Your task to perform on an android device: toggle improve location accuracy Image 0: 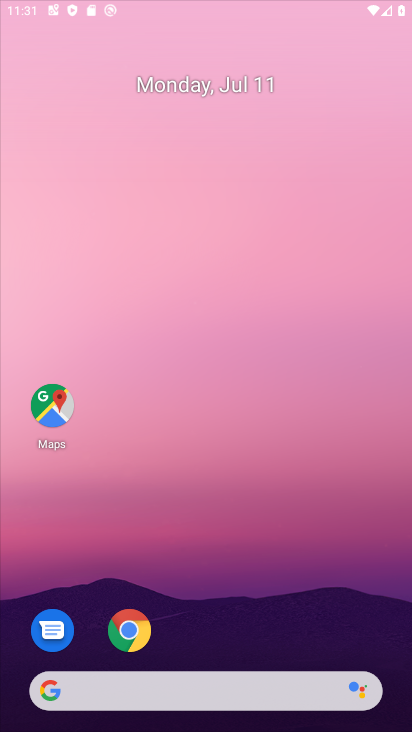
Step 0: press home button
Your task to perform on an android device: toggle improve location accuracy Image 1: 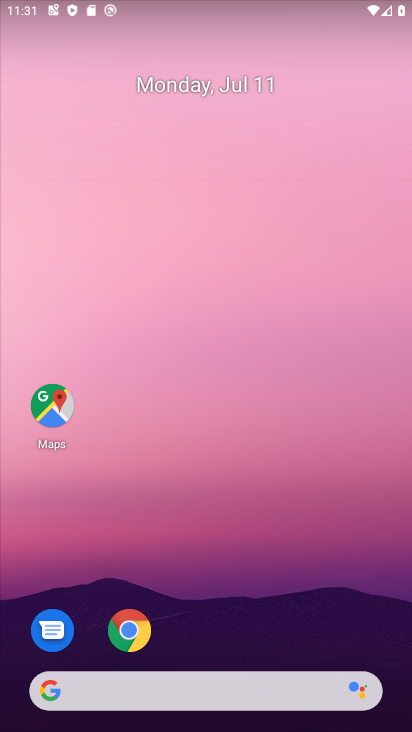
Step 1: click (55, 413)
Your task to perform on an android device: toggle improve location accuracy Image 2: 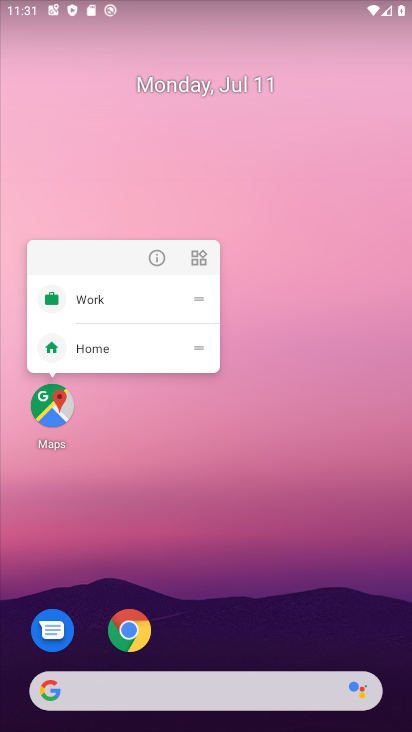
Step 2: drag from (347, 643) to (340, 56)
Your task to perform on an android device: toggle improve location accuracy Image 3: 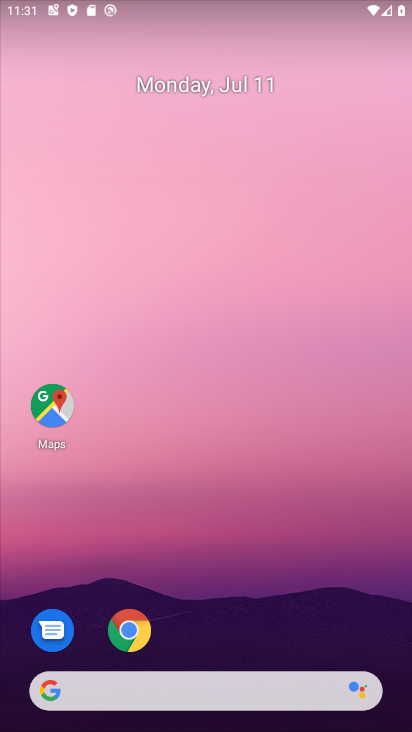
Step 3: drag from (252, 661) to (229, 260)
Your task to perform on an android device: toggle improve location accuracy Image 4: 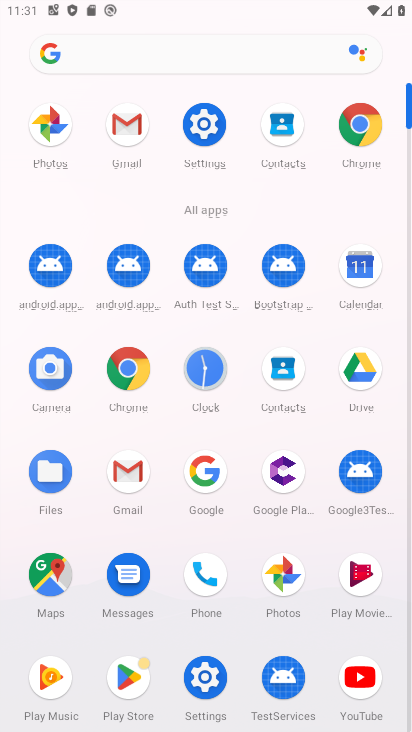
Step 4: click (202, 113)
Your task to perform on an android device: toggle improve location accuracy Image 5: 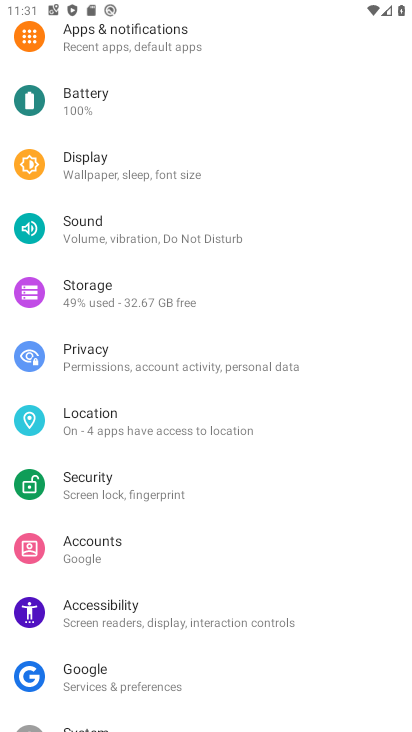
Step 5: click (159, 419)
Your task to perform on an android device: toggle improve location accuracy Image 6: 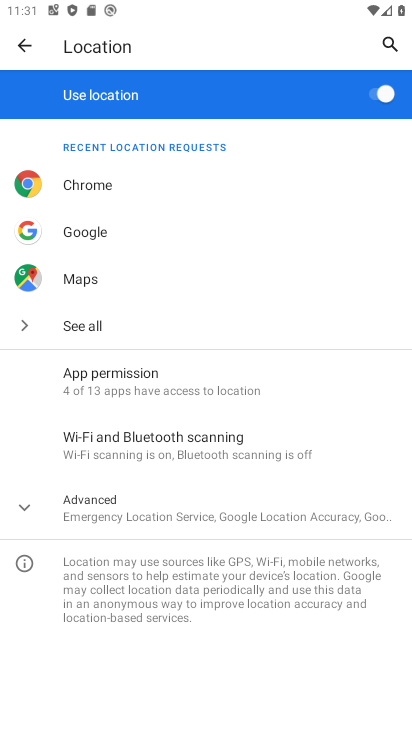
Step 6: click (164, 506)
Your task to perform on an android device: toggle improve location accuracy Image 7: 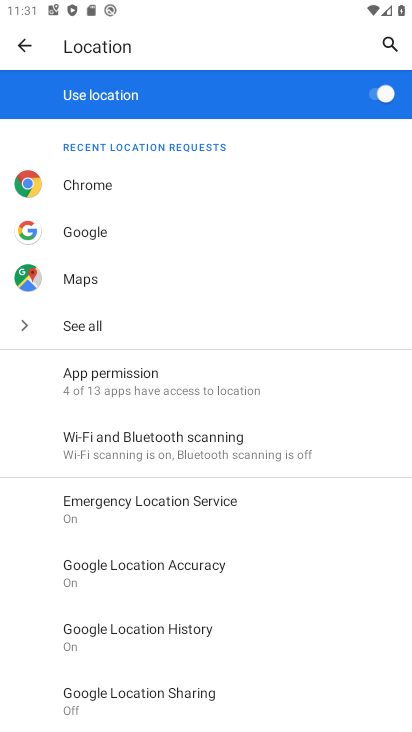
Step 7: click (165, 569)
Your task to perform on an android device: toggle improve location accuracy Image 8: 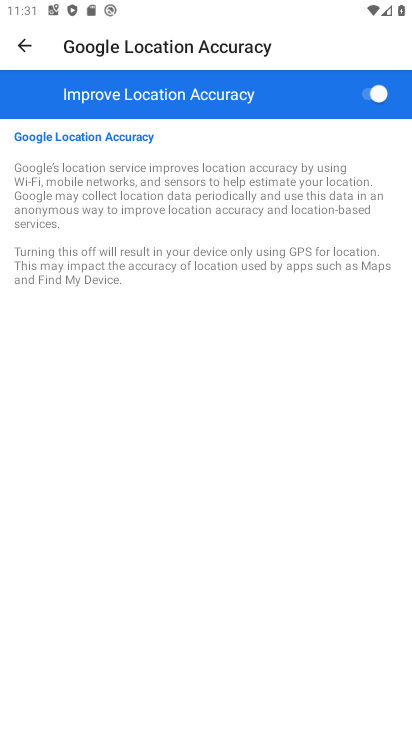
Step 8: click (378, 96)
Your task to perform on an android device: toggle improve location accuracy Image 9: 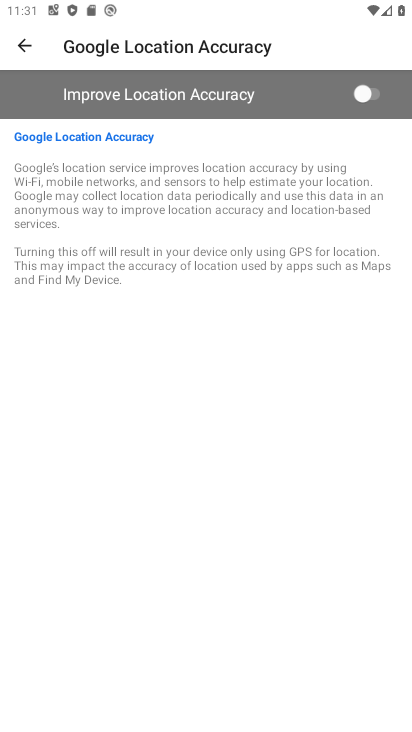
Step 9: task complete